Your task to perform on an android device: Go to Yahoo.com Image 0: 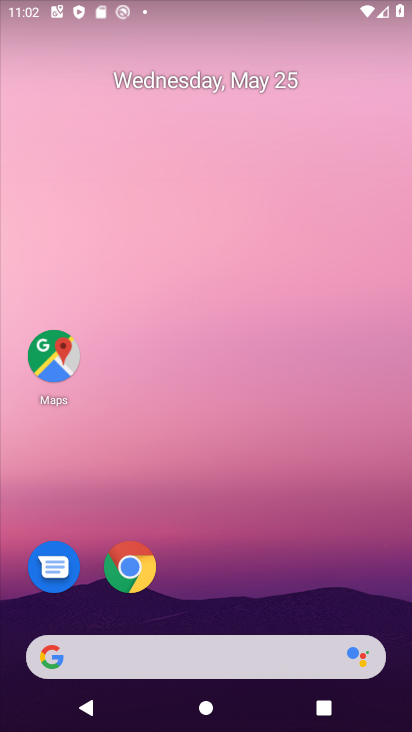
Step 0: click (134, 569)
Your task to perform on an android device: Go to Yahoo.com Image 1: 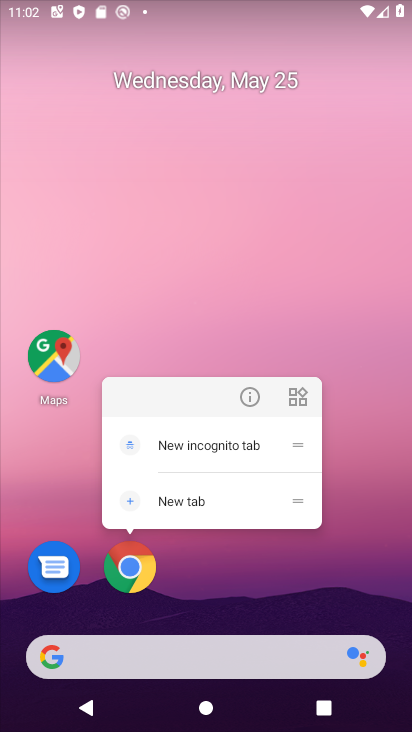
Step 1: click (125, 576)
Your task to perform on an android device: Go to Yahoo.com Image 2: 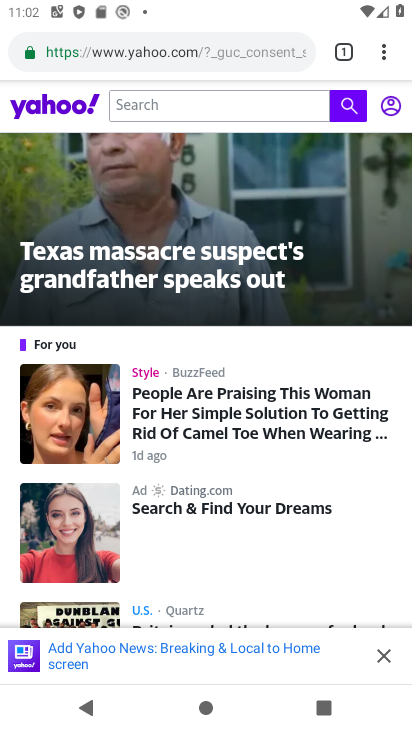
Step 2: task complete